Your task to perform on an android device: turn pop-ups on in chrome Image 0: 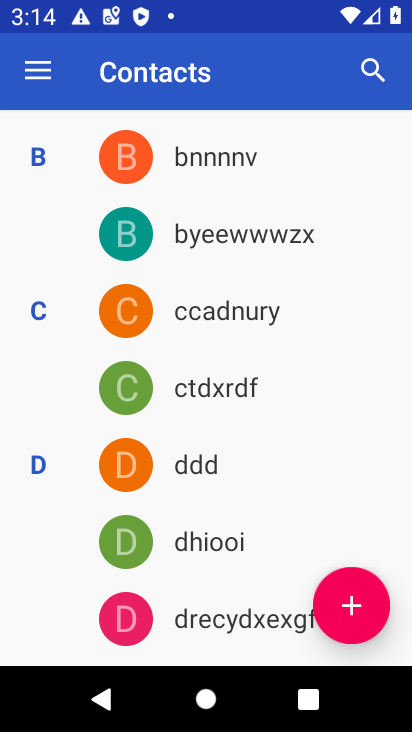
Step 0: press home button
Your task to perform on an android device: turn pop-ups on in chrome Image 1: 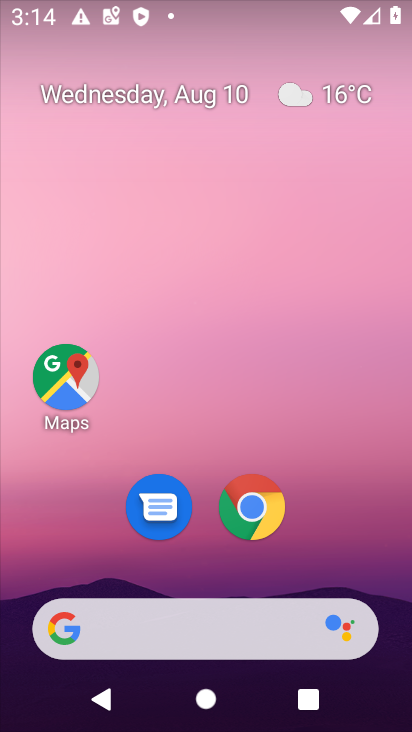
Step 1: drag from (327, 490) to (356, 1)
Your task to perform on an android device: turn pop-ups on in chrome Image 2: 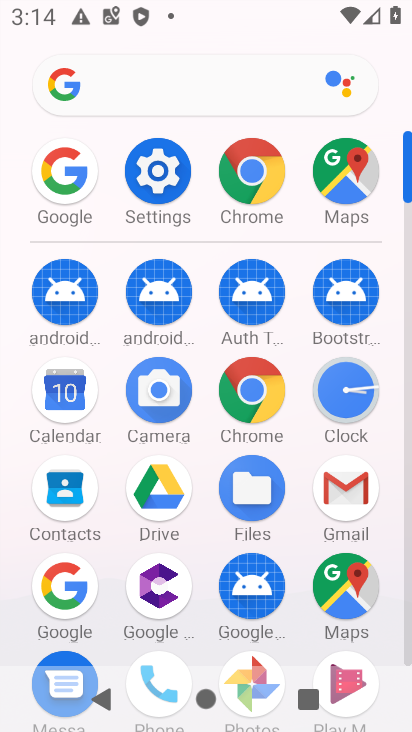
Step 2: click (248, 387)
Your task to perform on an android device: turn pop-ups on in chrome Image 3: 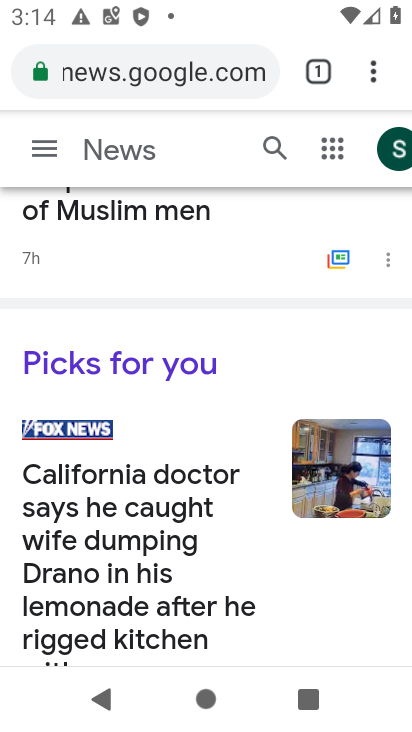
Step 3: drag from (375, 65) to (206, 519)
Your task to perform on an android device: turn pop-ups on in chrome Image 4: 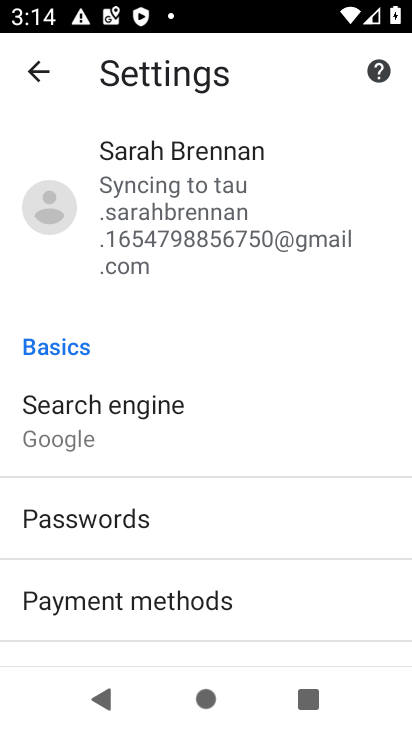
Step 4: drag from (185, 564) to (267, 110)
Your task to perform on an android device: turn pop-ups on in chrome Image 5: 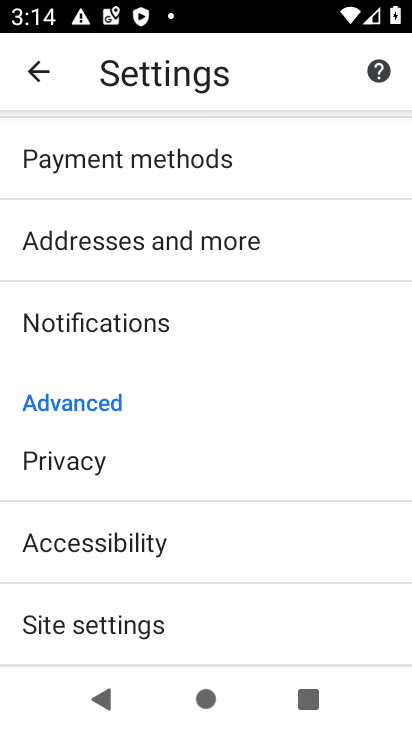
Step 5: click (134, 625)
Your task to perform on an android device: turn pop-ups on in chrome Image 6: 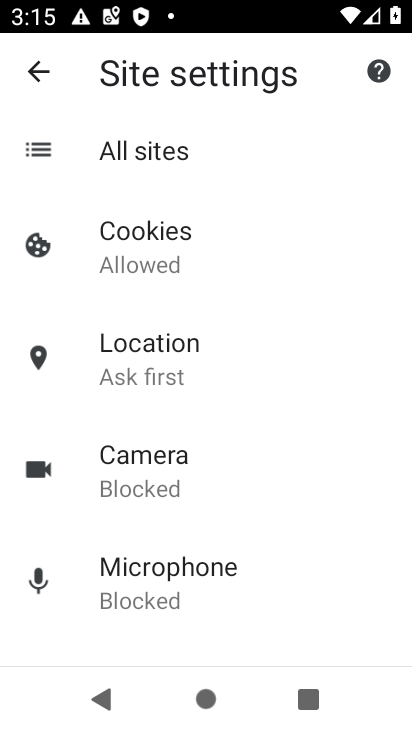
Step 6: drag from (235, 550) to (257, 139)
Your task to perform on an android device: turn pop-ups on in chrome Image 7: 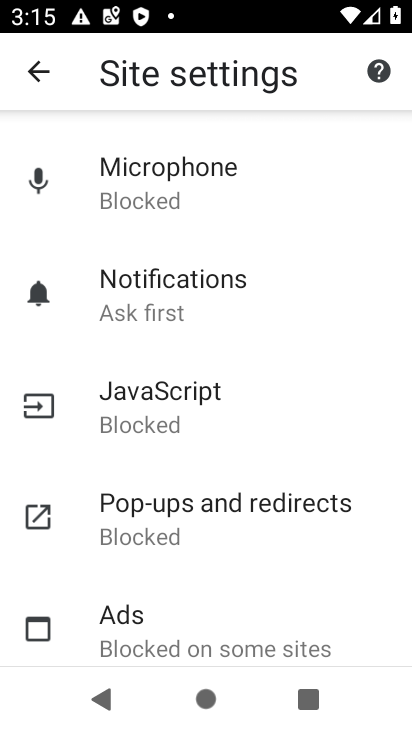
Step 7: click (153, 491)
Your task to perform on an android device: turn pop-ups on in chrome Image 8: 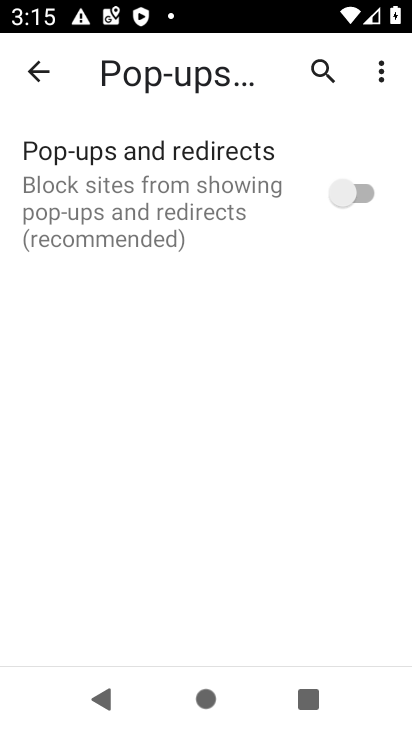
Step 8: click (347, 183)
Your task to perform on an android device: turn pop-ups on in chrome Image 9: 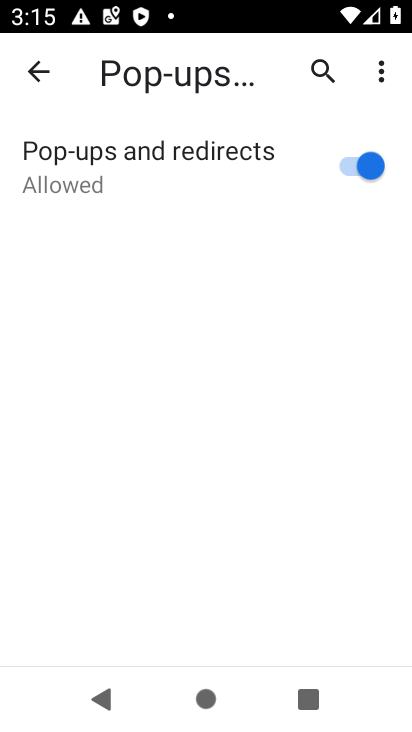
Step 9: task complete